Your task to perform on an android device: Open Chrome and go to settings Image 0: 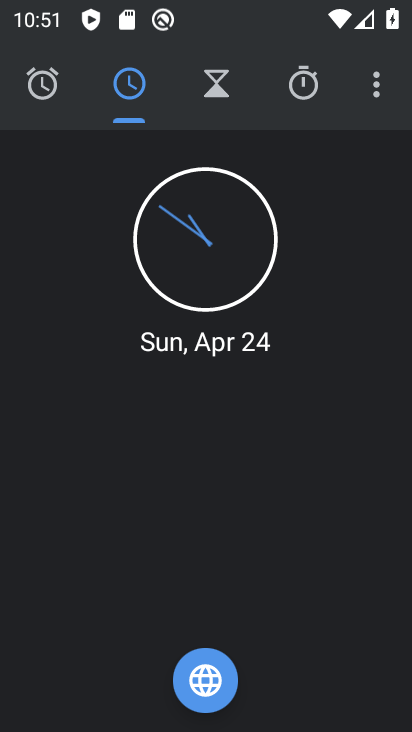
Step 0: press home button
Your task to perform on an android device: Open Chrome and go to settings Image 1: 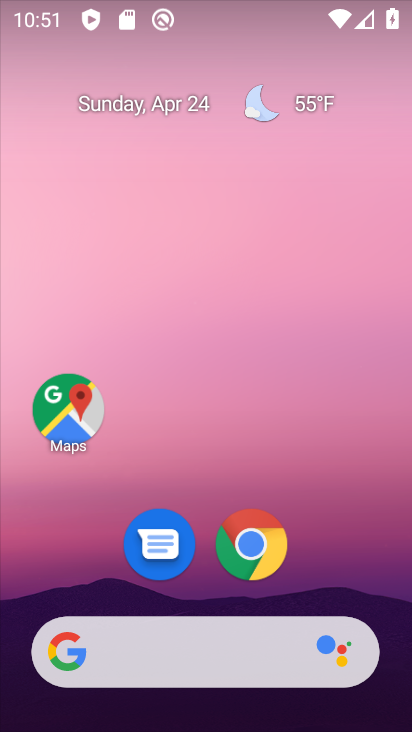
Step 1: drag from (299, 471) to (283, 175)
Your task to perform on an android device: Open Chrome and go to settings Image 2: 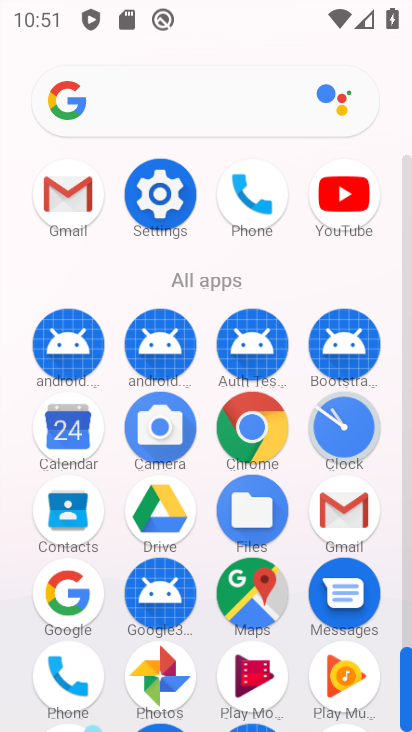
Step 2: click (258, 443)
Your task to perform on an android device: Open Chrome and go to settings Image 3: 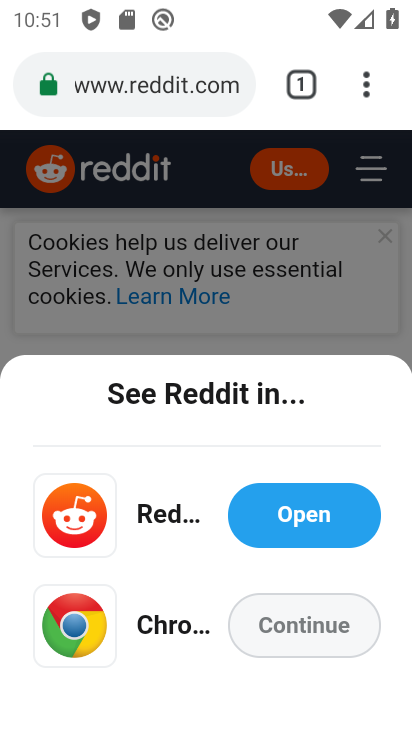
Step 3: task complete